Your task to perform on an android device: Is it going to rain today? Image 0: 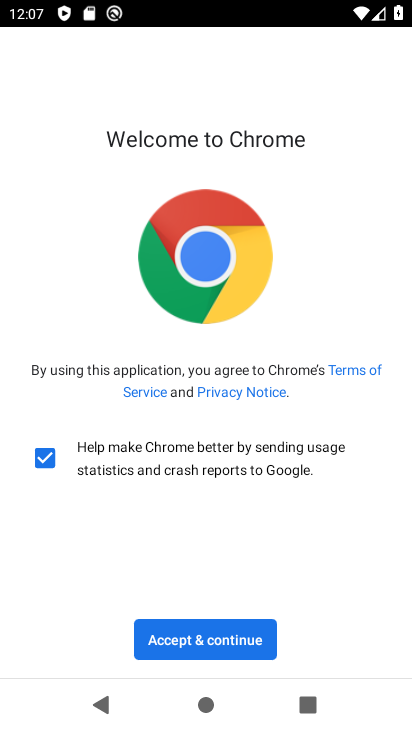
Step 0: press home button
Your task to perform on an android device: Is it going to rain today? Image 1: 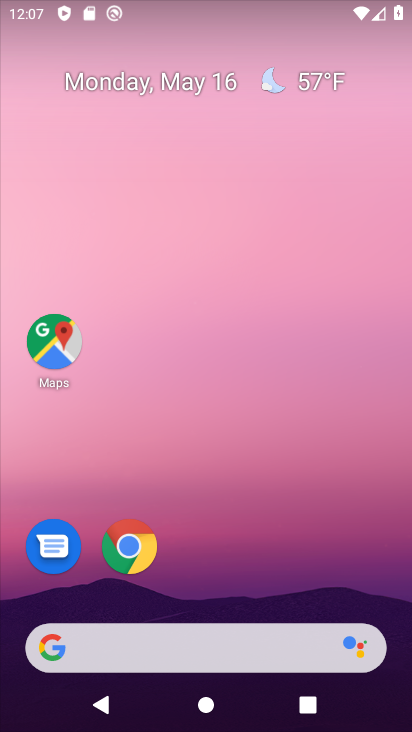
Step 1: click (135, 561)
Your task to perform on an android device: Is it going to rain today? Image 2: 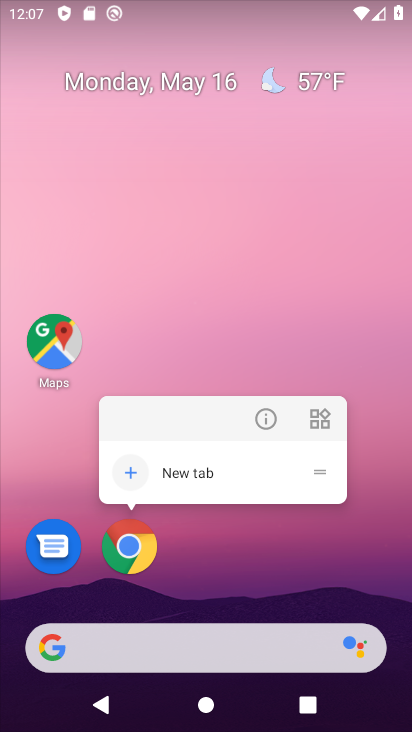
Step 2: click (129, 556)
Your task to perform on an android device: Is it going to rain today? Image 3: 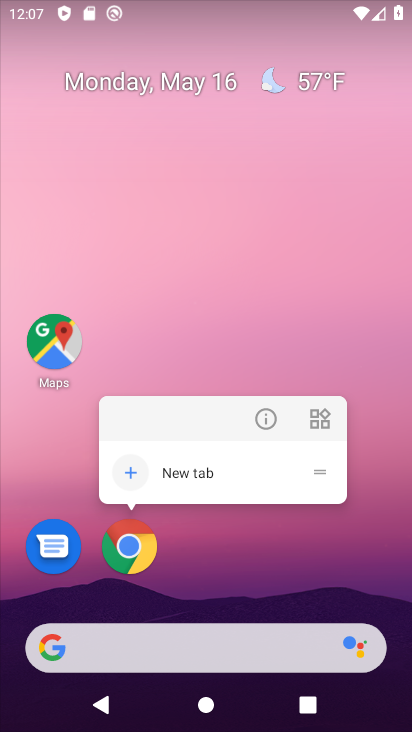
Step 3: click (133, 539)
Your task to perform on an android device: Is it going to rain today? Image 4: 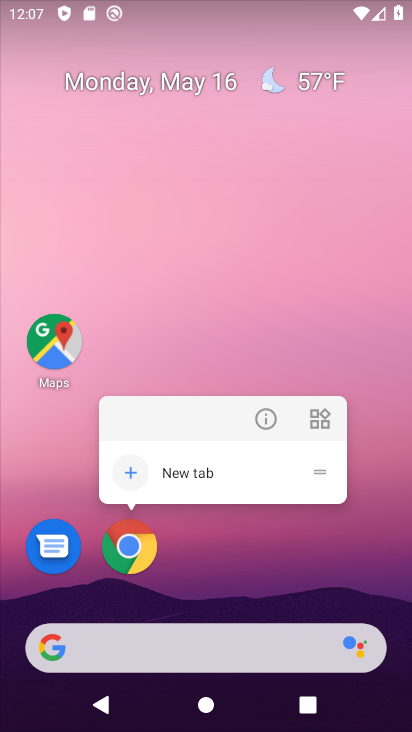
Step 4: click (133, 552)
Your task to perform on an android device: Is it going to rain today? Image 5: 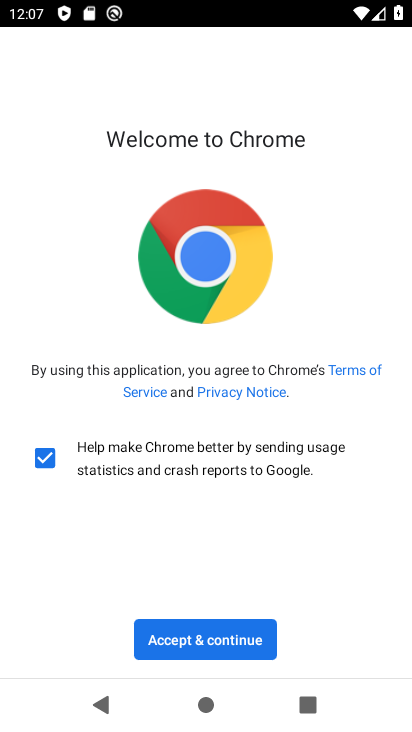
Step 5: click (209, 635)
Your task to perform on an android device: Is it going to rain today? Image 6: 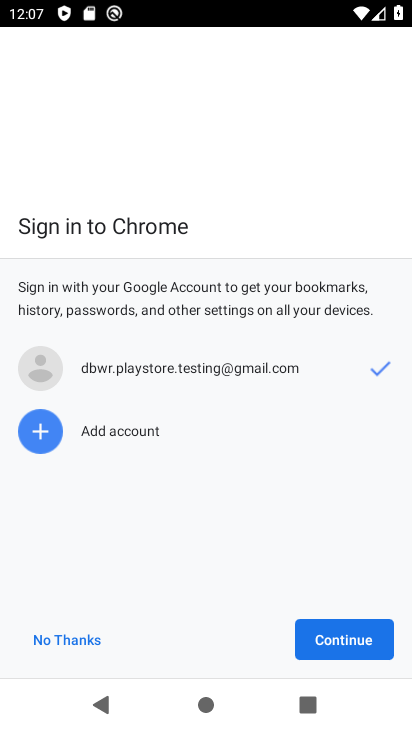
Step 6: click (353, 640)
Your task to perform on an android device: Is it going to rain today? Image 7: 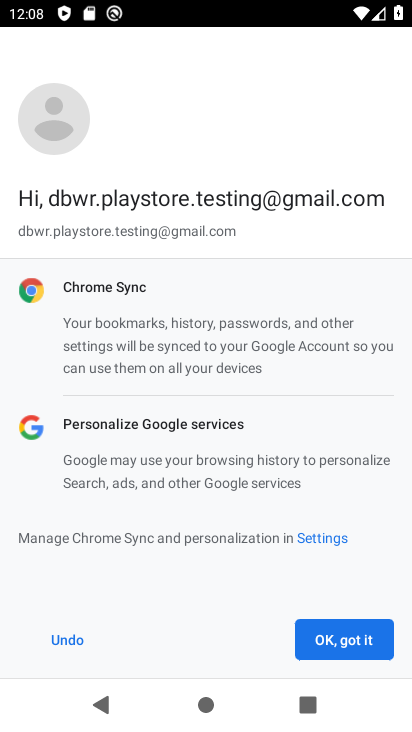
Step 7: click (323, 642)
Your task to perform on an android device: Is it going to rain today? Image 8: 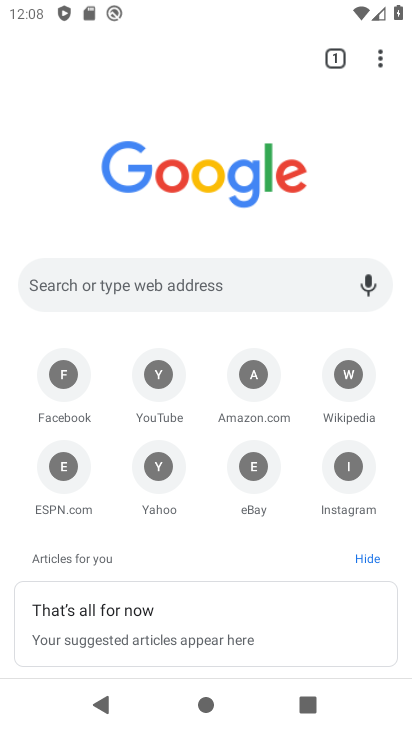
Step 8: click (149, 284)
Your task to perform on an android device: Is it going to rain today? Image 9: 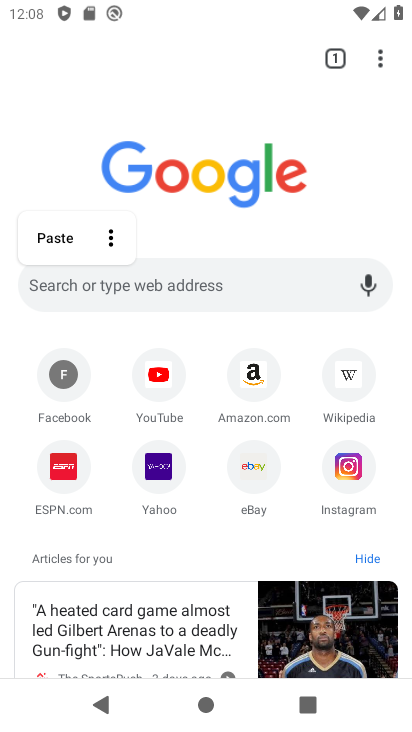
Step 9: type "is it going to rain today"
Your task to perform on an android device: Is it going to rain today? Image 10: 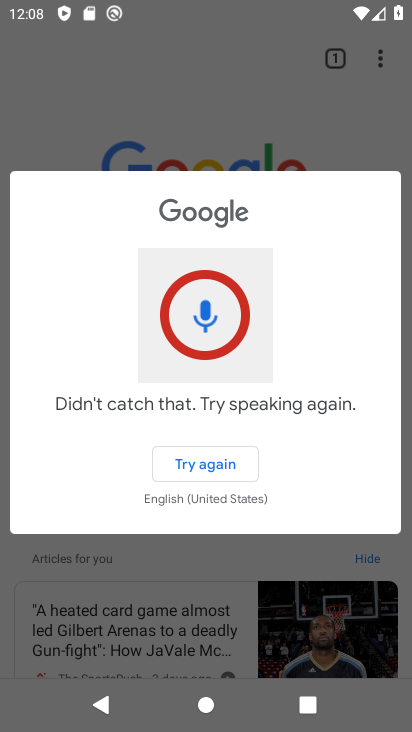
Step 10: click (310, 109)
Your task to perform on an android device: Is it going to rain today? Image 11: 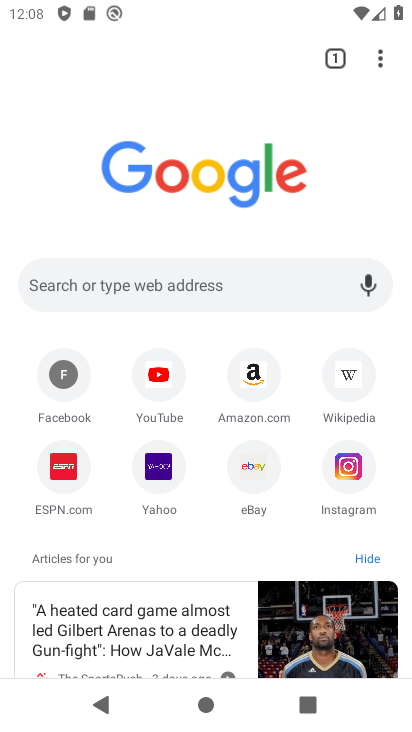
Step 11: click (270, 285)
Your task to perform on an android device: Is it going to rain today? Image 12: 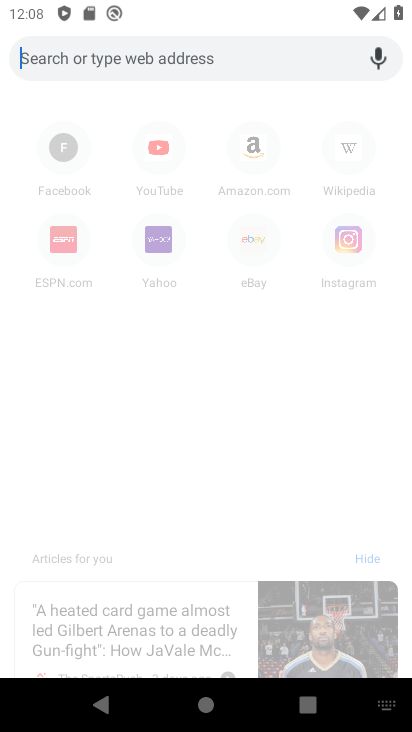
Step 12: type "Is it going to rain today"
Your task to perform on an android device: Is it going to rain today? Image 13: 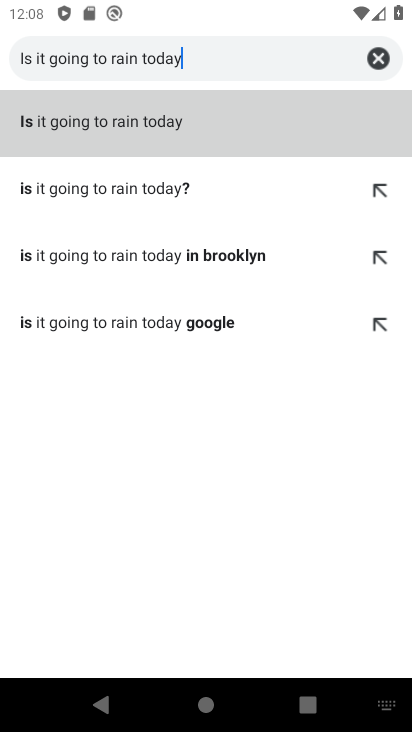
Step 13: click (112, 182)
Your task to perform on an android device: Is it going to rain today? Image 14: 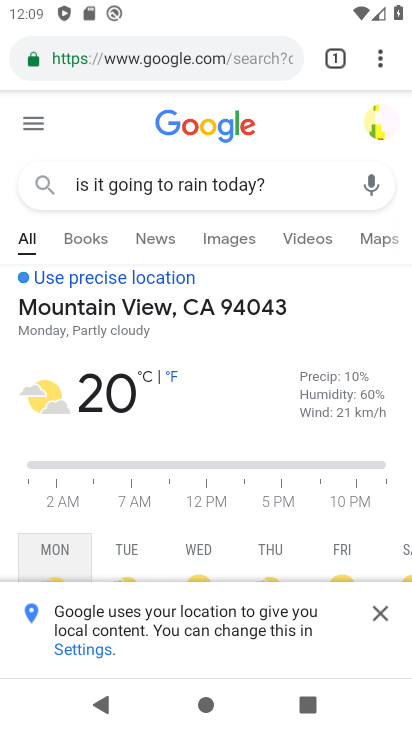
Step 14: task complete